Your task to perform on an android device: toggle wifi Image 0: 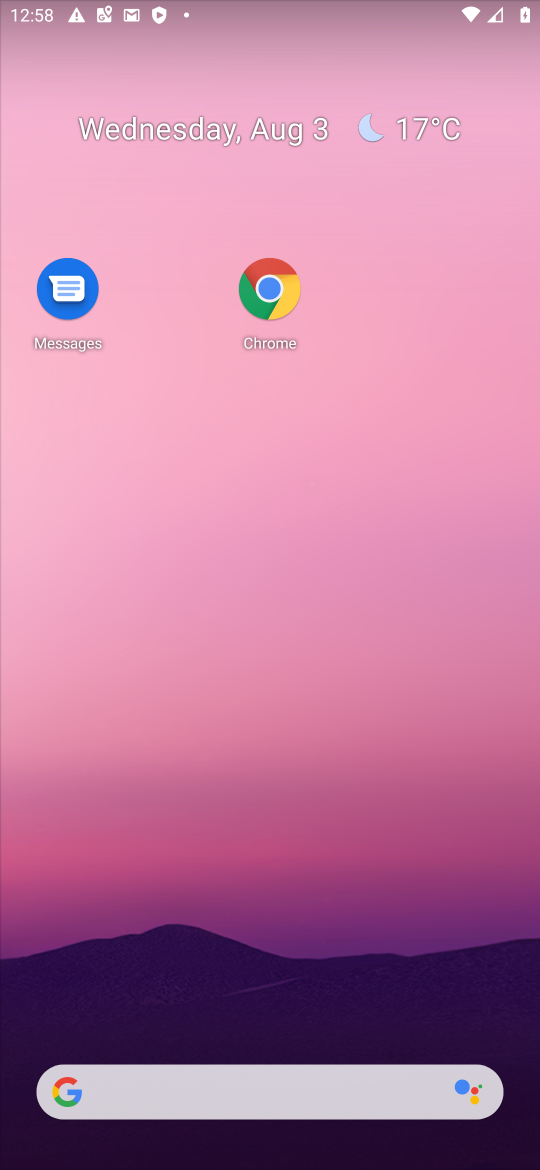
Step 0: drag from (343, 1037) to (300, 442)
Your task to perform on an android device: toggle wifi Image 1: 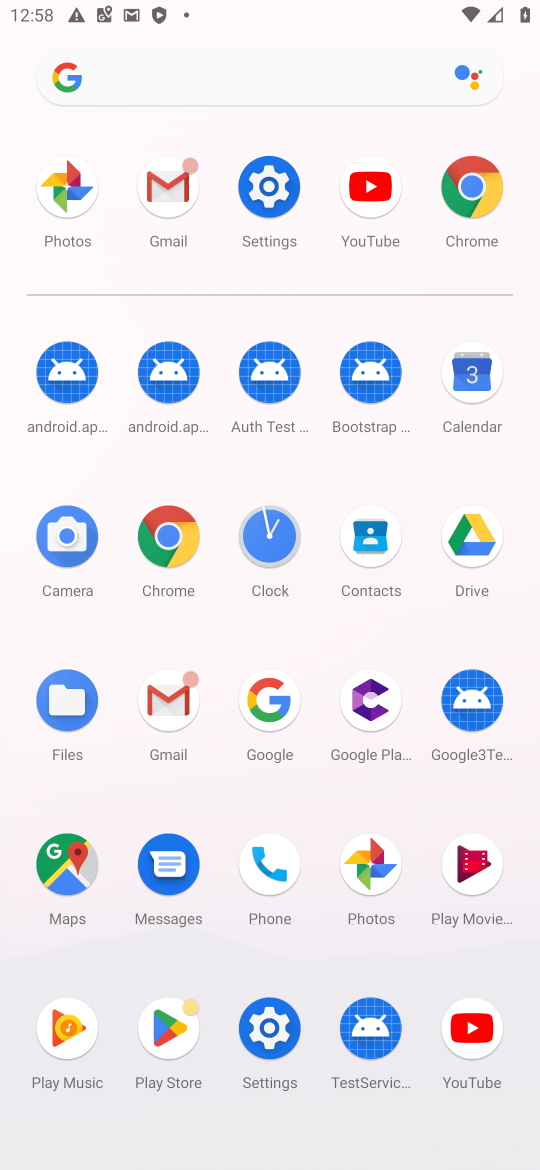
Step 1: click (260, 229)
Your task to perform on an android device: toggle wifi Image 2: 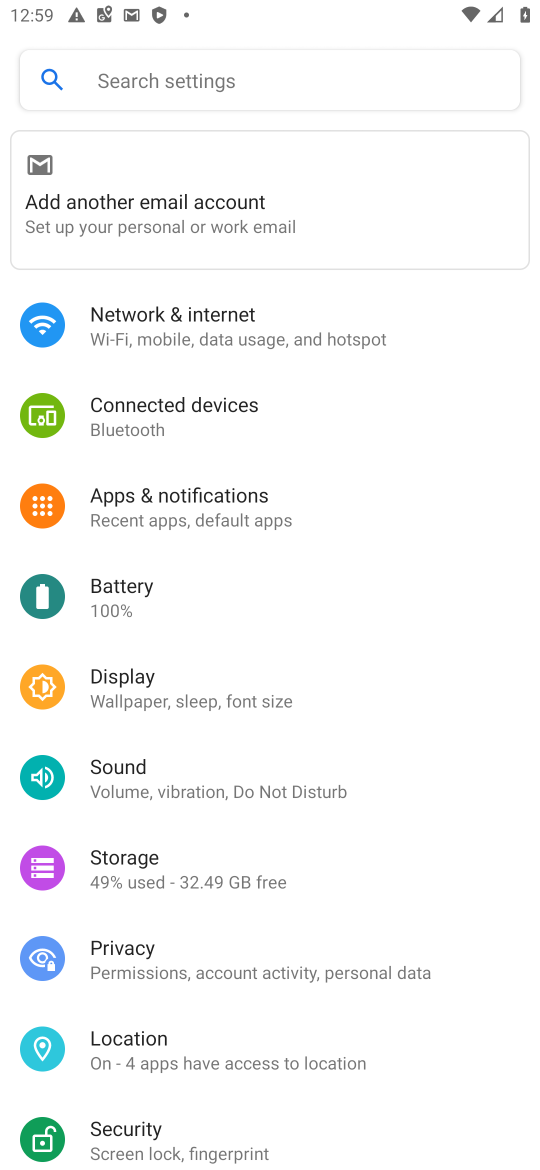
Step 2: click (271, 351)
Your task to perform on an android device: toggle wifi Image 3: 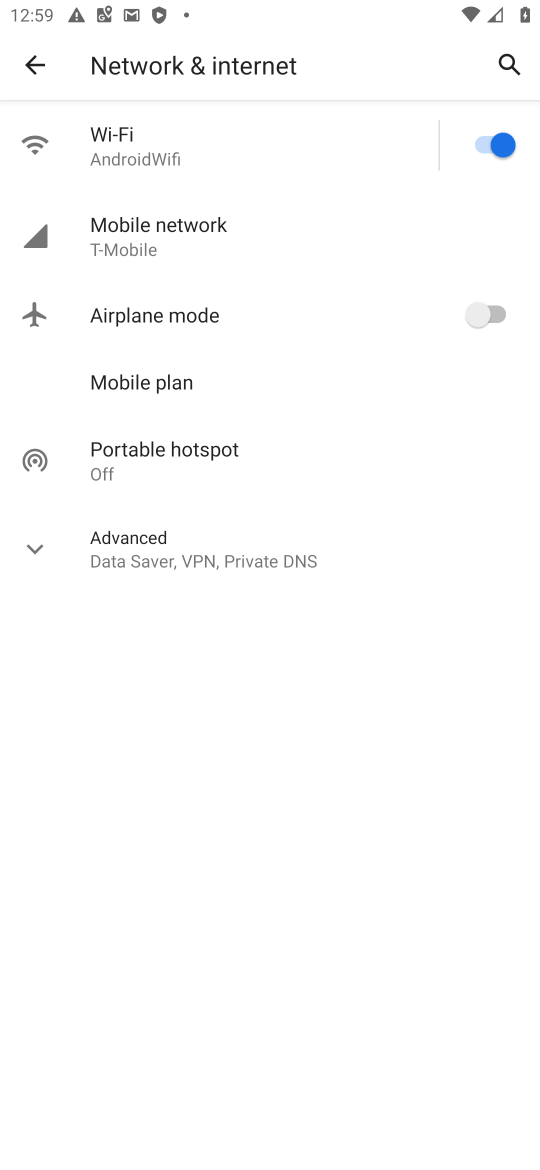
Step 3: click (271, 351)
Your task to perform on an android device: toggle wifi Image 4: 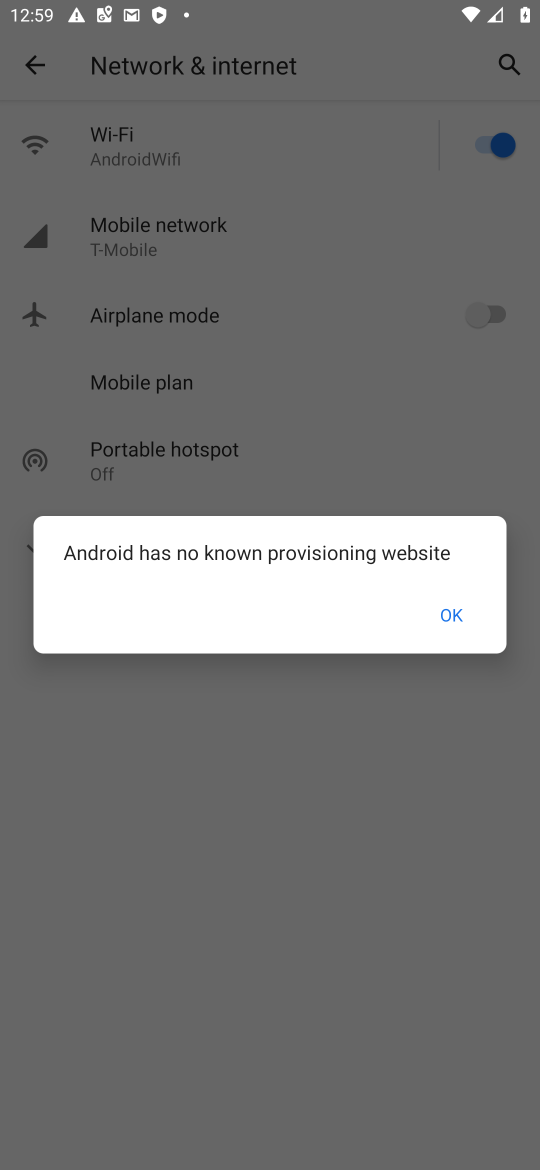
Step 4: press home button
Your task to perform on an android device: toggle wifi Image 5: 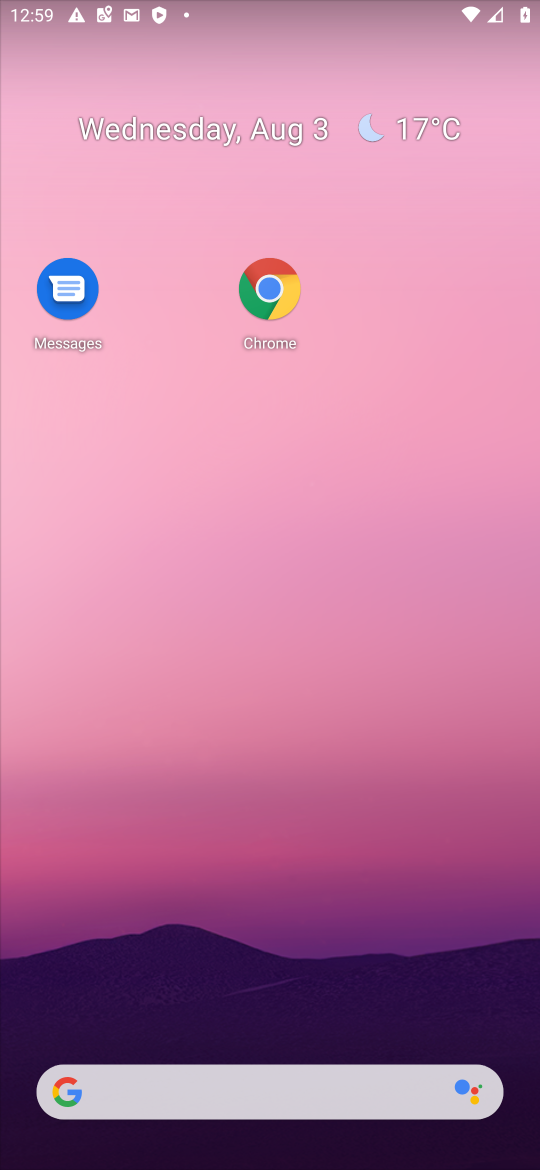
Step 5: drag from (355, 1028) to (439, 170)
Your task to perform on an android device: toggle wifi Image 6: 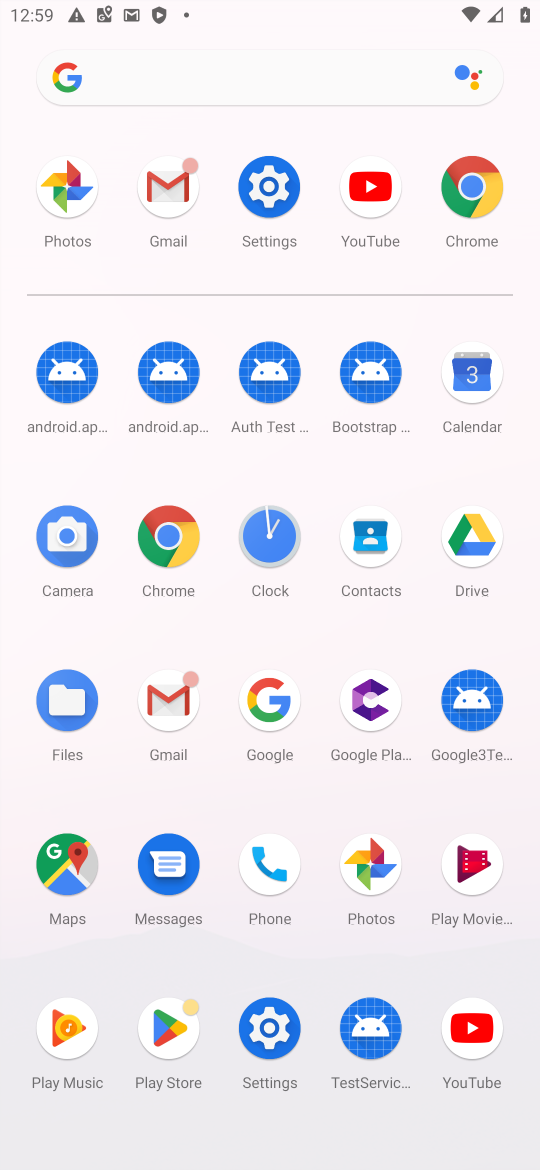
Step 6: click (256, 176)
Your task to perform on an android device: toggle wifi Image 7: 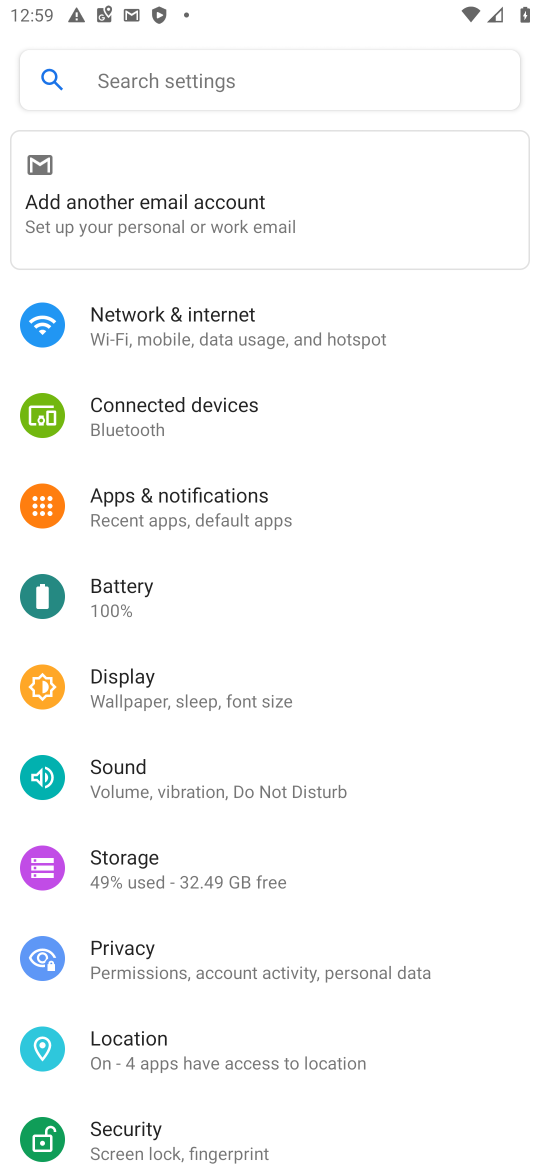
Step 7: click (307, 323)
Your task to perform on an android device: toggle wifi Image 8: 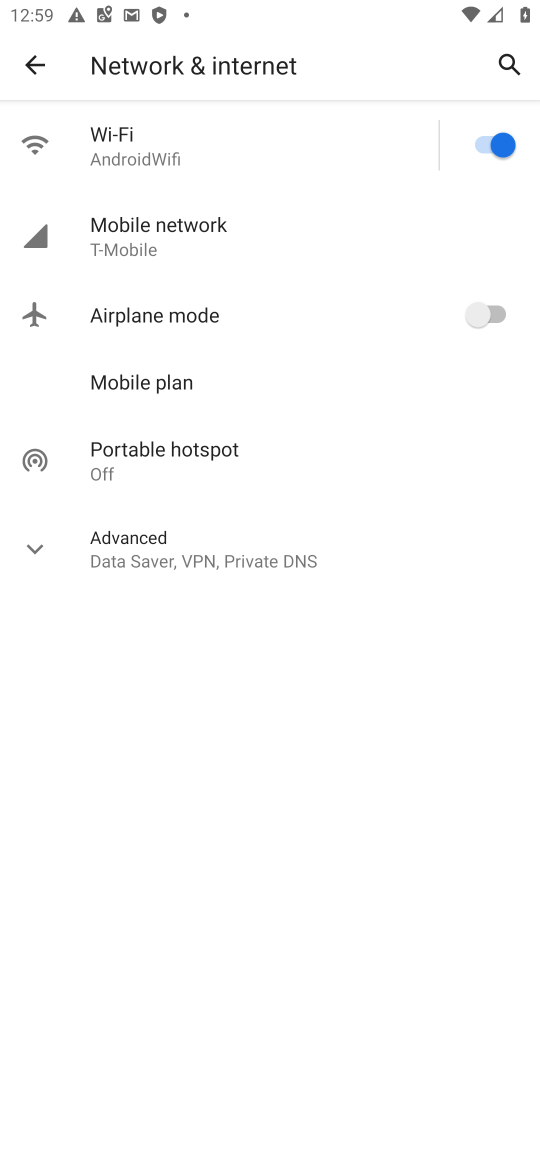
Step 8: task complete